Your task to perform on an android device: Open network settings Image 0: 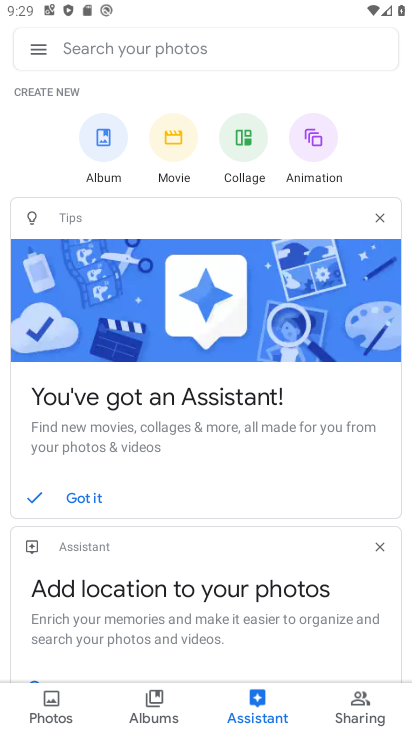
Step 0: press home button
Your task to perform on an android device: Open network settings Image 1: 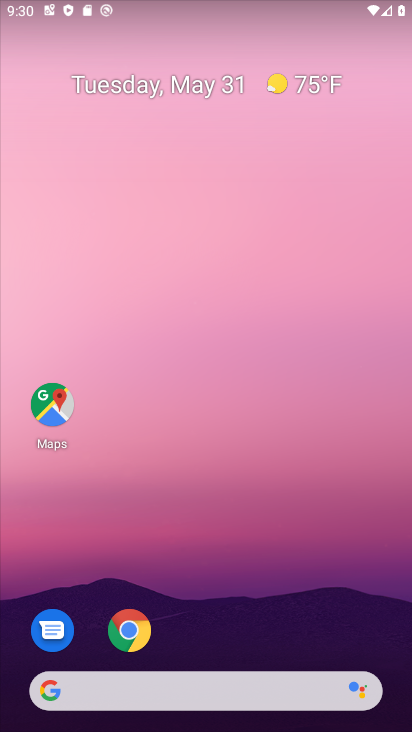
Step 1: drag from (199, 666) to (226, 317)
Your task to perform on an android device: Open network settings Image 2: 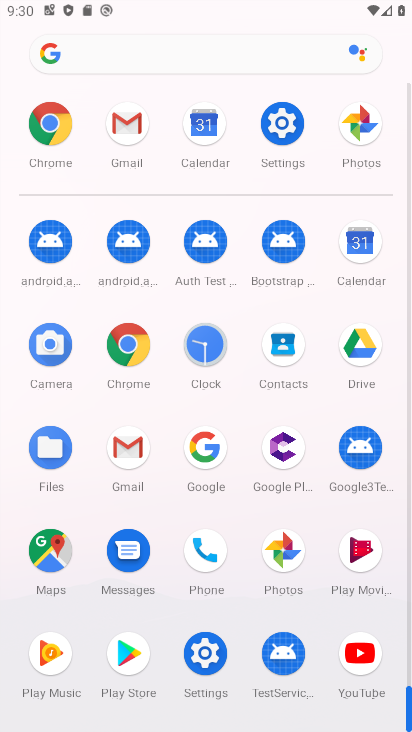
Step 2: click (284, 150)
Your task to perform on an android device: Open network settings Image 3: 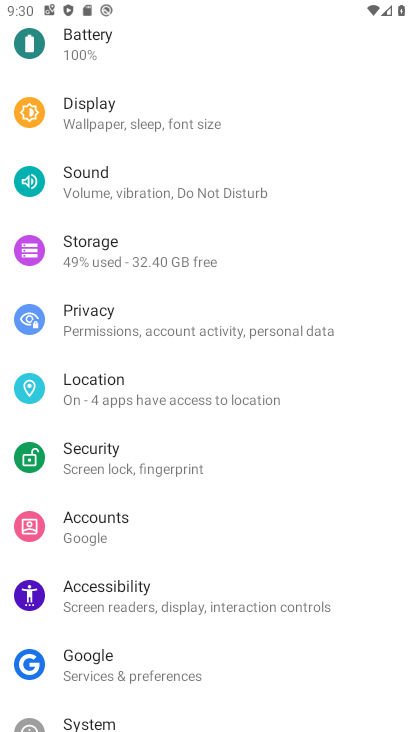
Step 3: drag from (173, 314) to (159, 583)
Your task to perform on an android device: Open network settings Image 4: 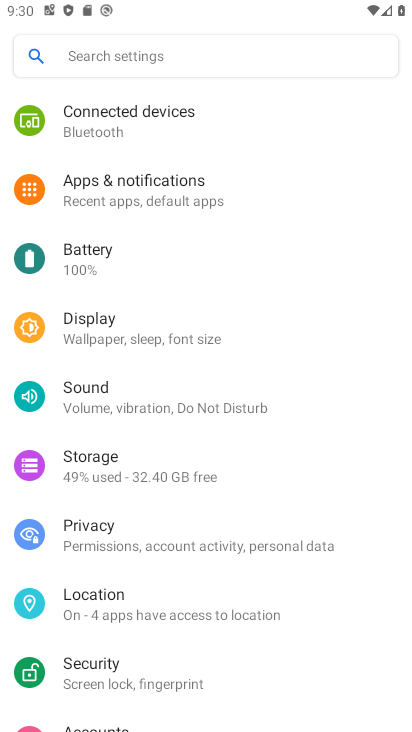
Step 4: drag from (176, 287) to (175, 627)
Your task to perform on an android device: Open network settings Image 5: 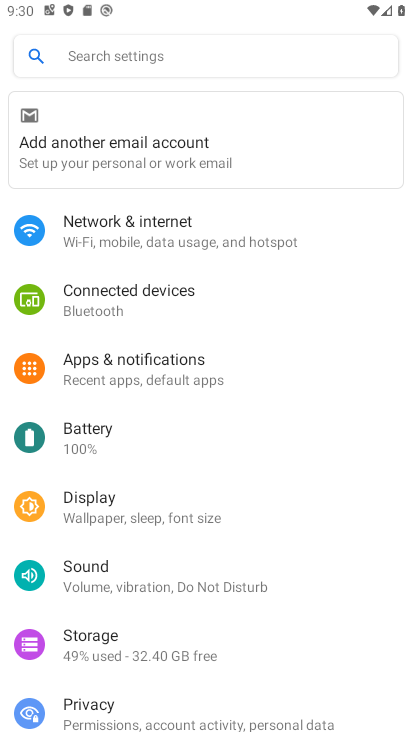
Step 5: drag from (189, 333) to (190, 607)
Your task to perform on an android device: Open network settings Image 6: 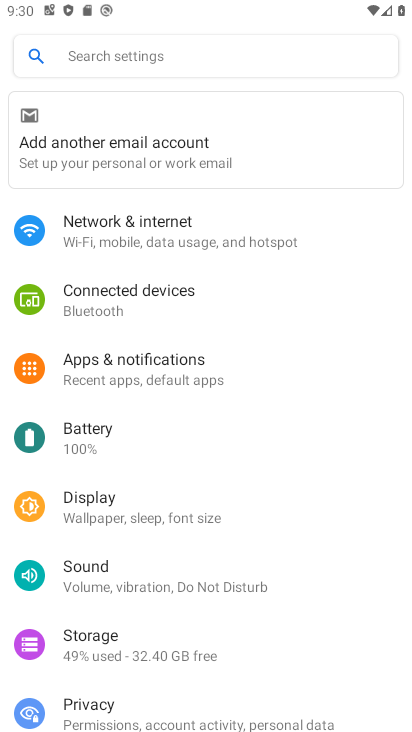
Step 6: click (175, 235)
Your task to perform on an android device: Open network settings Image 7: 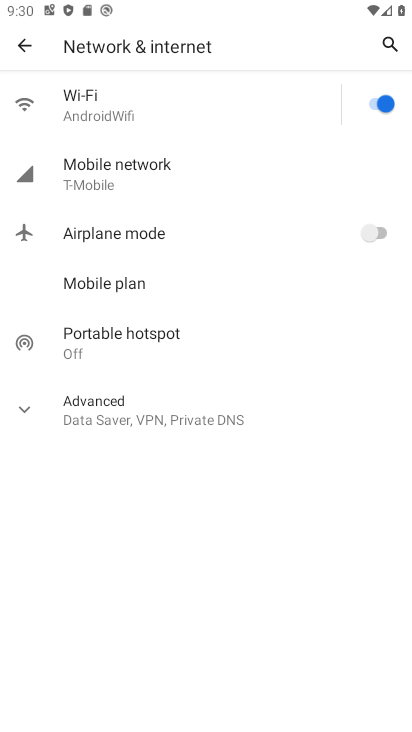
Step 7: click (149, 179)
Your task to perform on an android device: Open network settings Image 8: 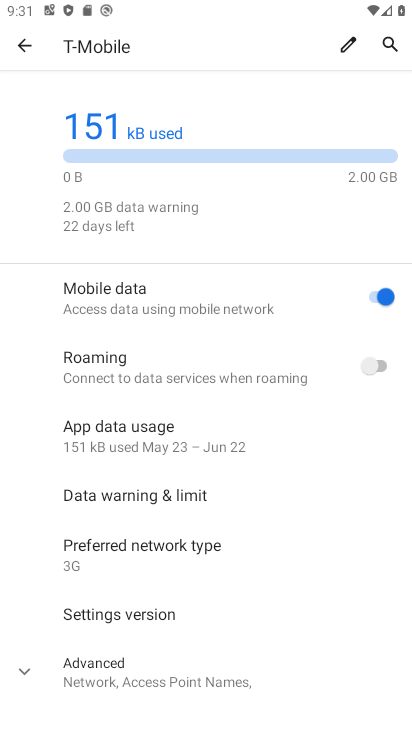
Step 8: task complete